Your task to perform on an android device: Search for flights from Barcelona to Mexico city Image 0: 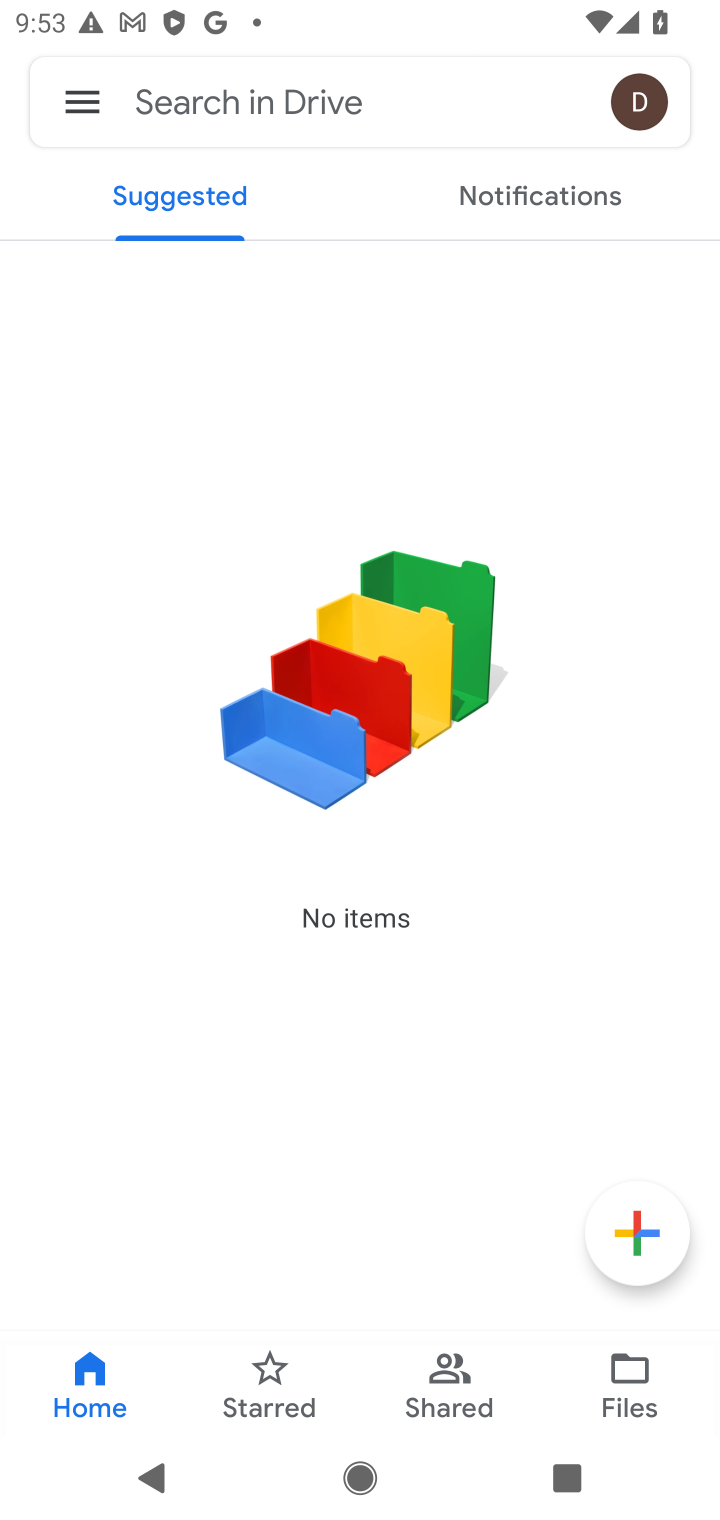
Step 0: press home button
Your task to perform on an android device: Search for flights from Barcelona to Mexico city Image 1: 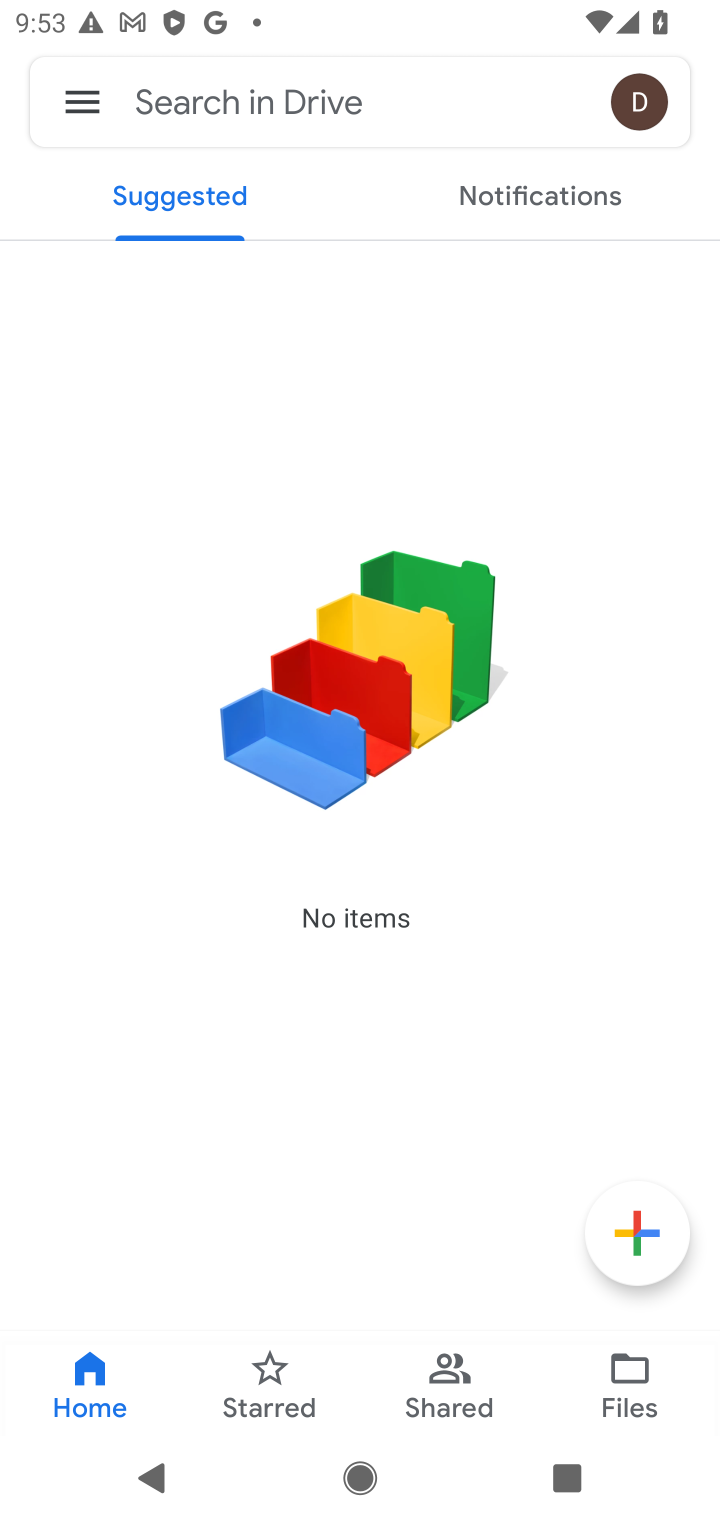
Step 1: press home button
Your task to perform on an android device: Search for flights from Barcelona to Mexico city Image 2: 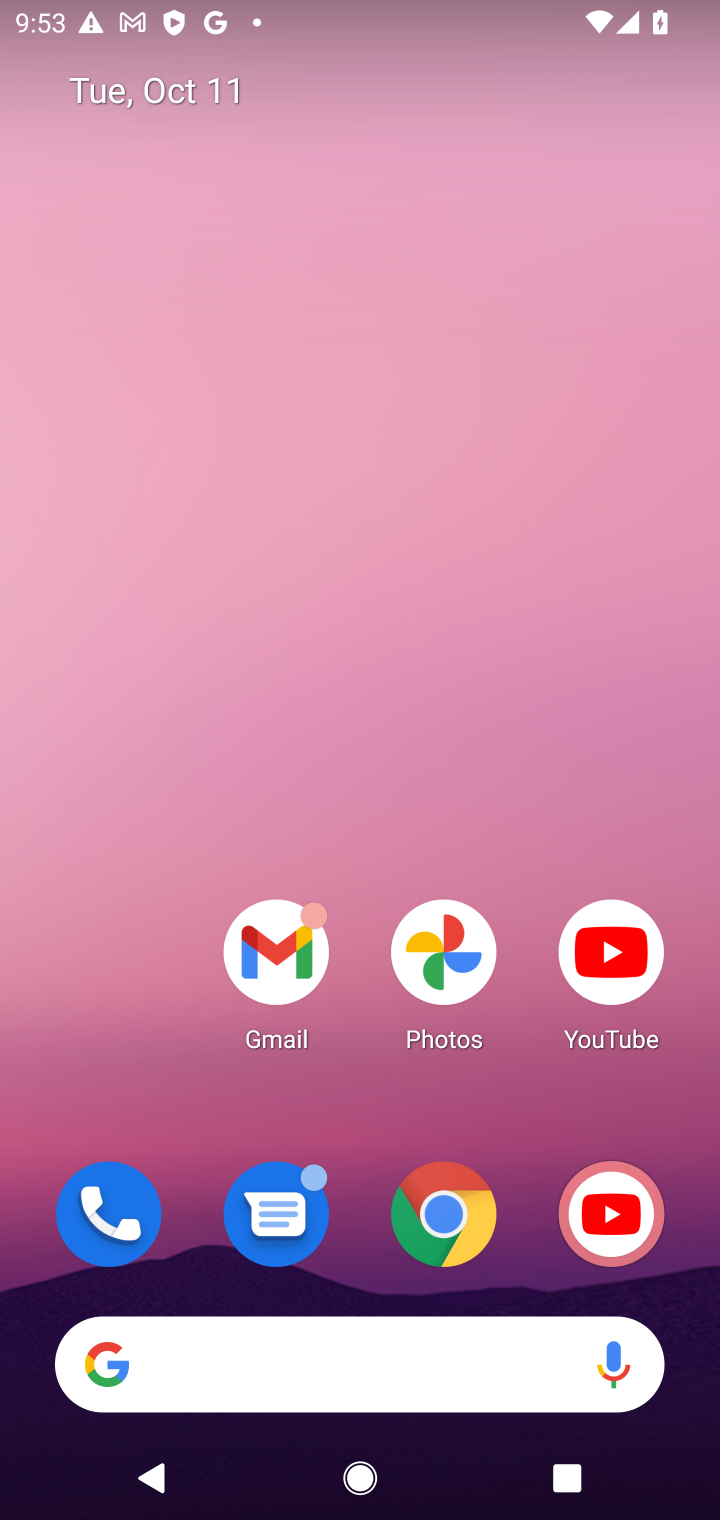
Step 2: drag from (345, 1094) to (486, 23)
Your task to perform on an android device: Search for flights from Barcelona to Mexico city Image 3: 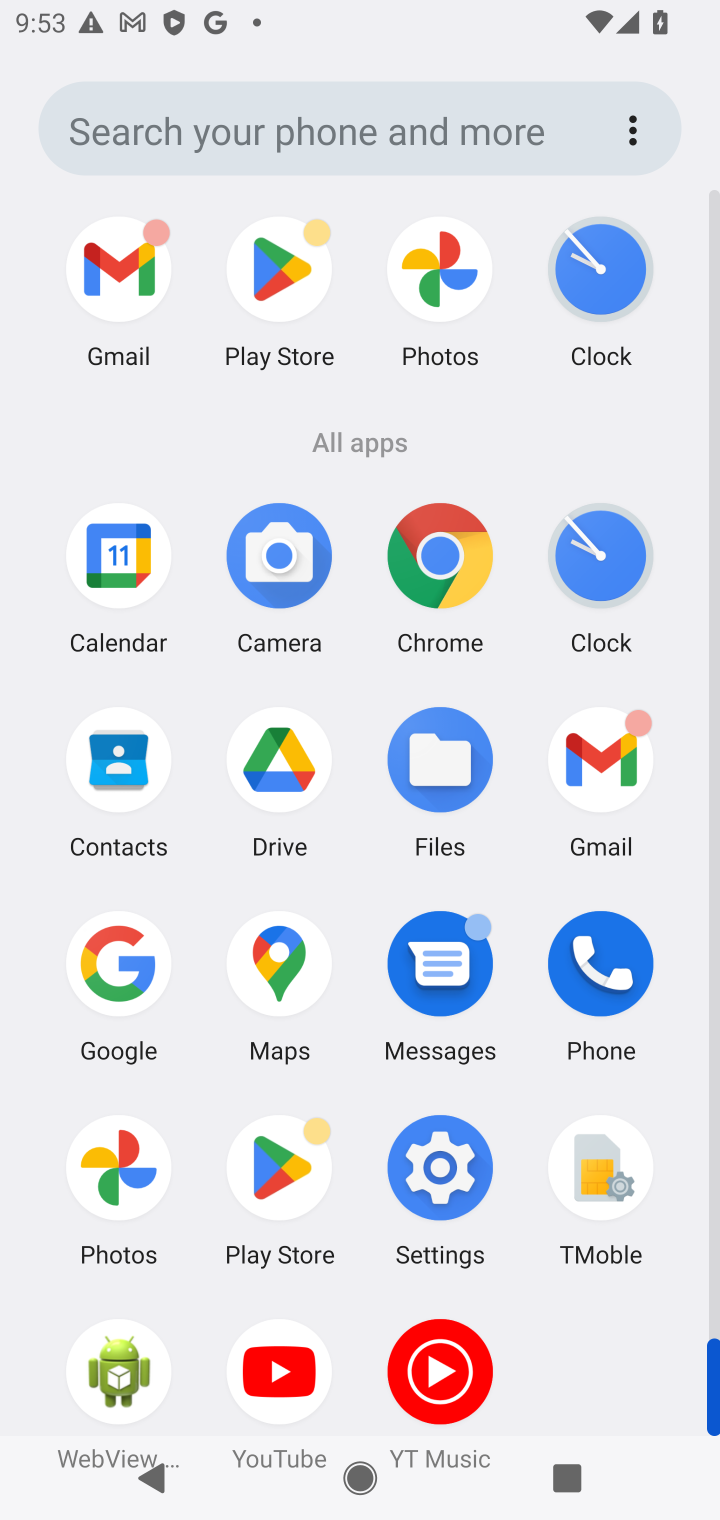
Step 3: click (441, 555)
Your task to perform on an android device: Search for flights from Barcelona to Mexico city Image 4: 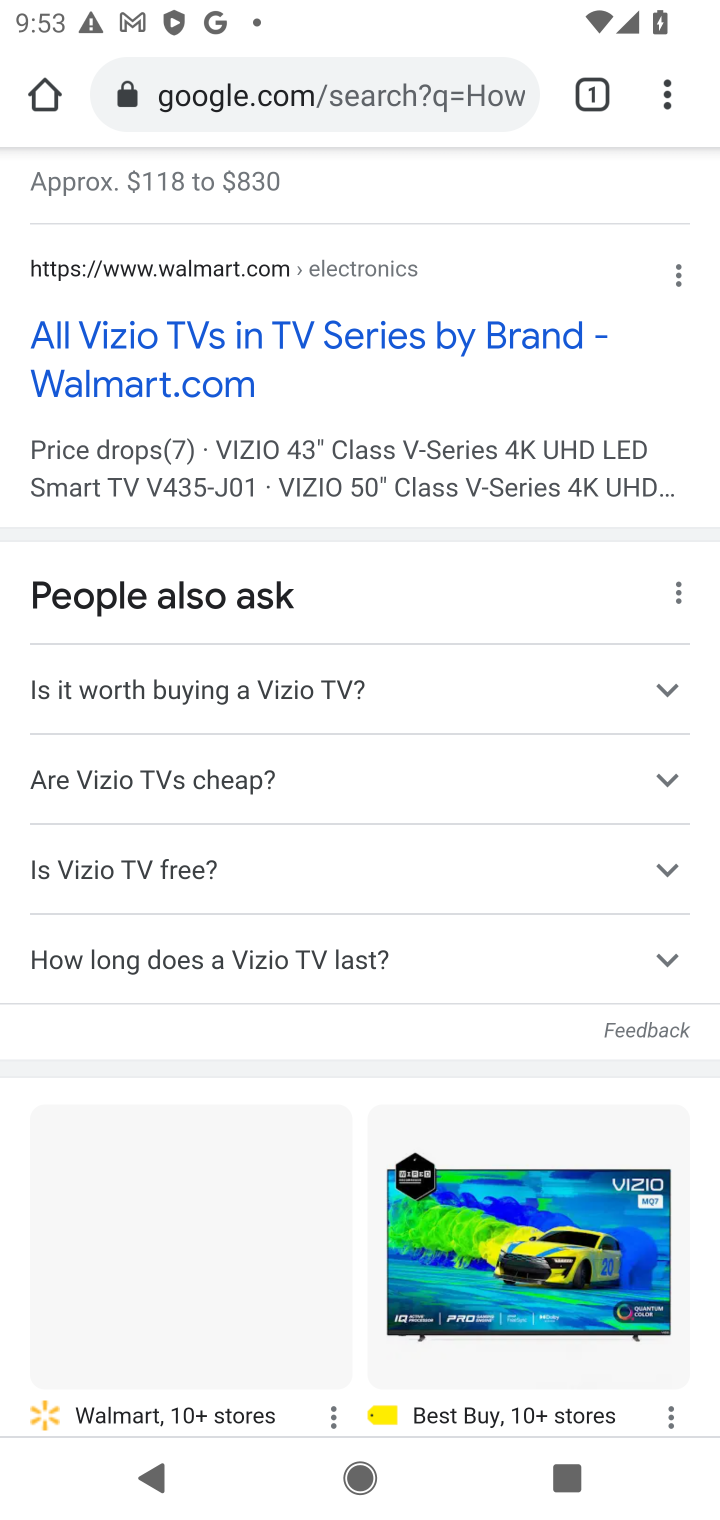
Step 4: click (350, 86)
Your task to perform on an android device: Search for flights from Barcelona to Mexico city Image 5: 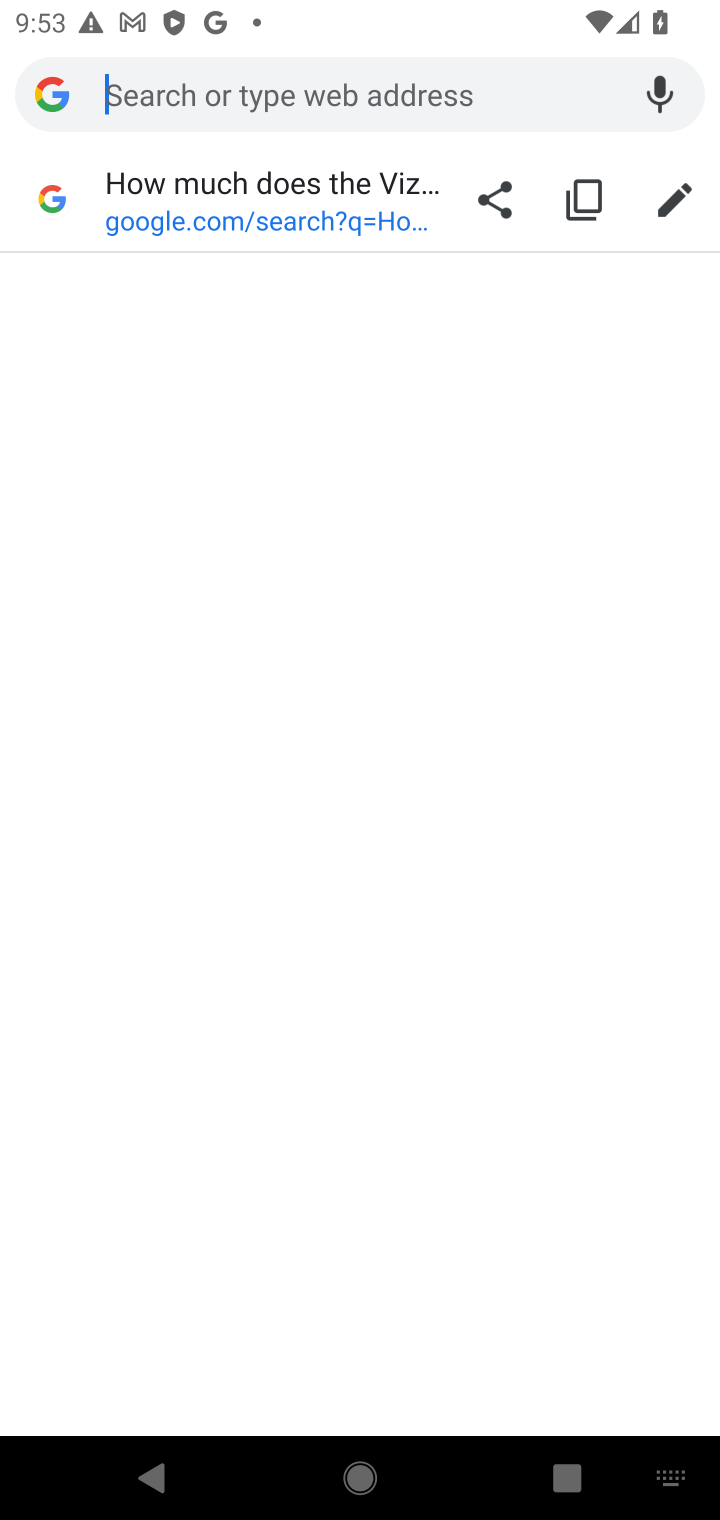
Step 5: type "flights from Barcelona to Mexico city"
Your task to perform on an android device: Search for flights from Barcelona to Mexico city Image 6: 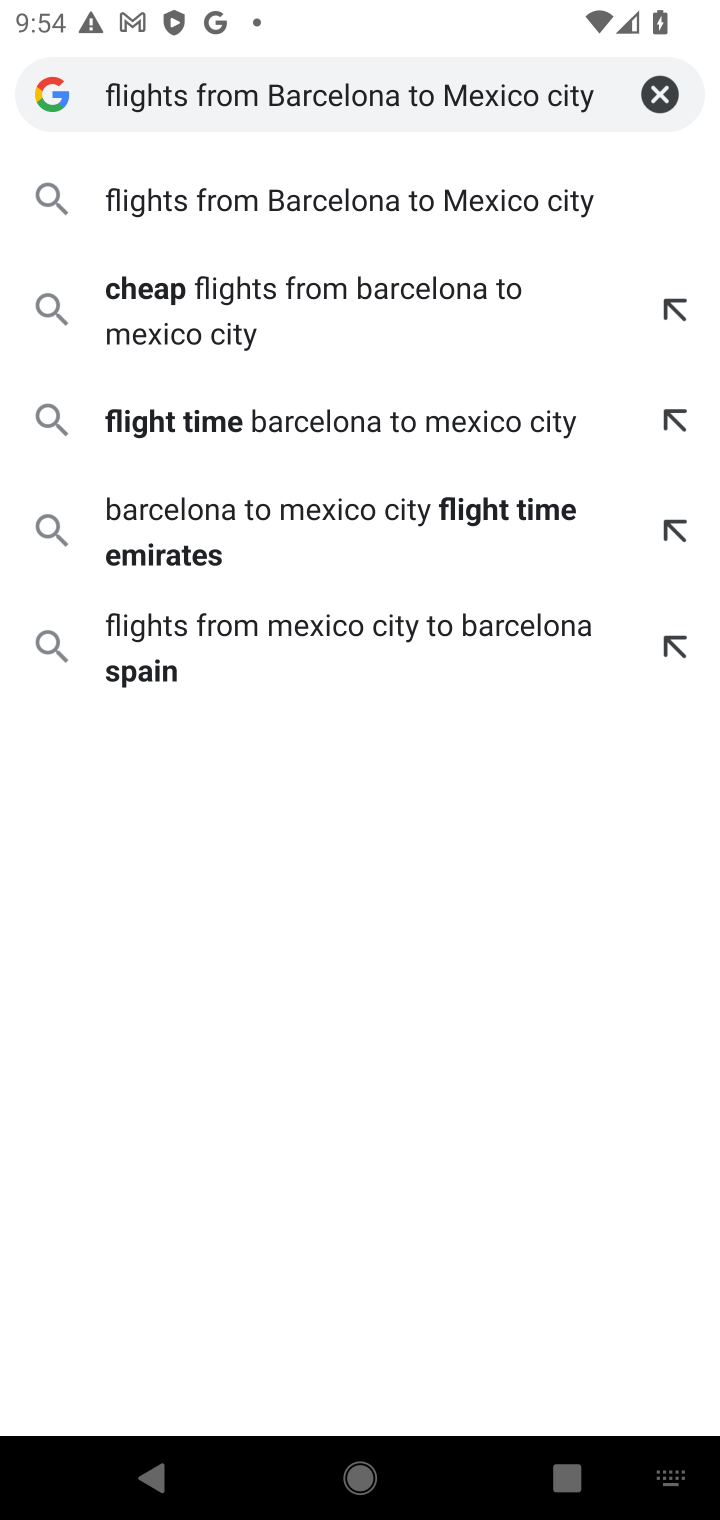
Step 6: press enter
Your task to perform on an android device: Search for flights from Barcelona to Mexico city Image 7: 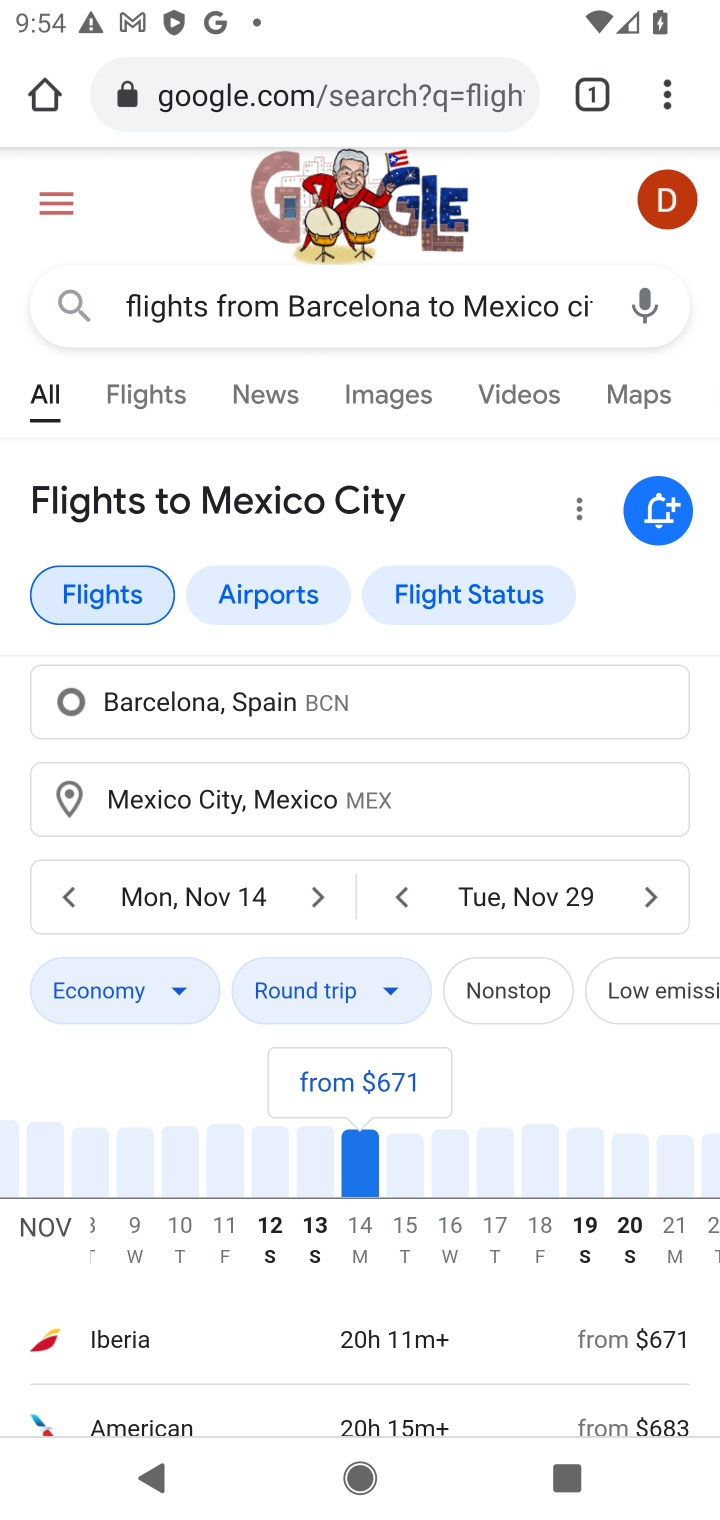
Step 7: task complete